Your task to perform on an android device: Open my contact list Image 0: 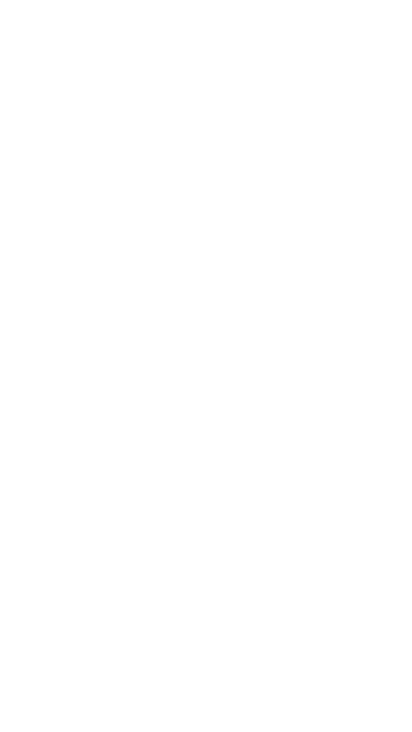
Step 0: press home button
Your task to perform on an android device: Open my contact list Image 1: 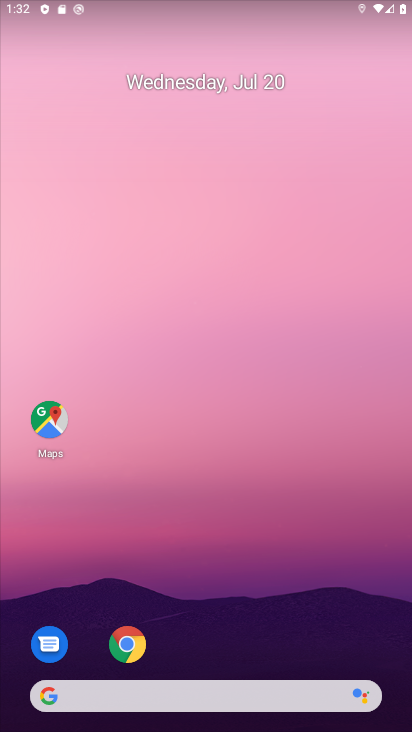
Step 1: drag from (258, 627) to (255, 3)
Your task to perform on an android device: Open my contact list Image 2: 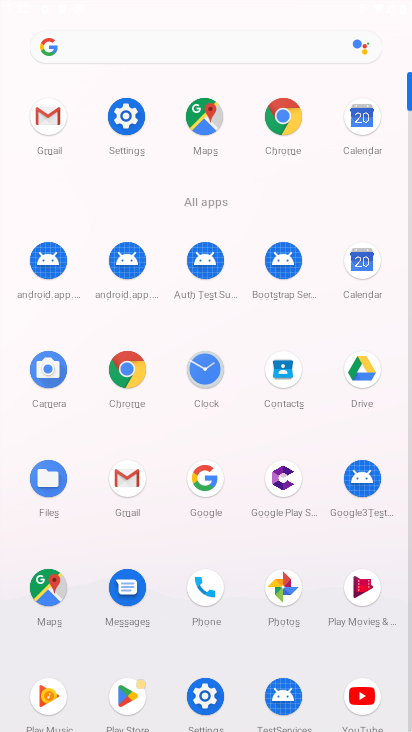
Step 2: click (289, 377)
Your task to perform on an android device: Open my contact list Image 3: 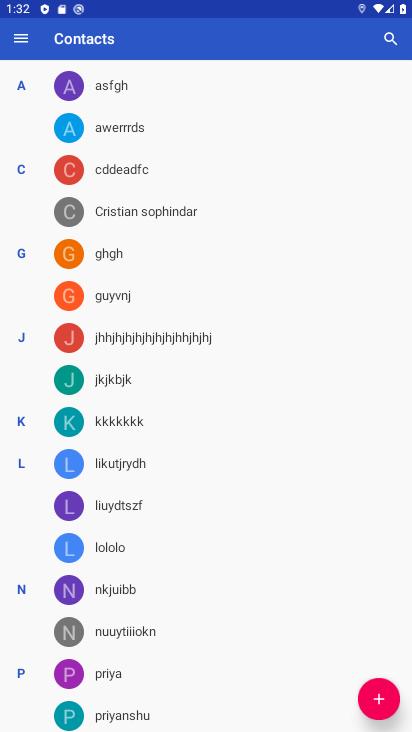
Step 3: task complete